Your task to perform on an android device: change keyboard looks Image 0: 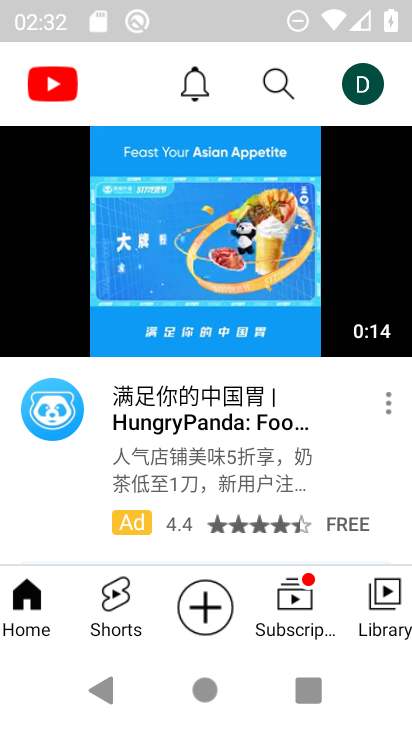
Step 0: press home button
Your task to perform on an android device: change keyboard looks Image 1: 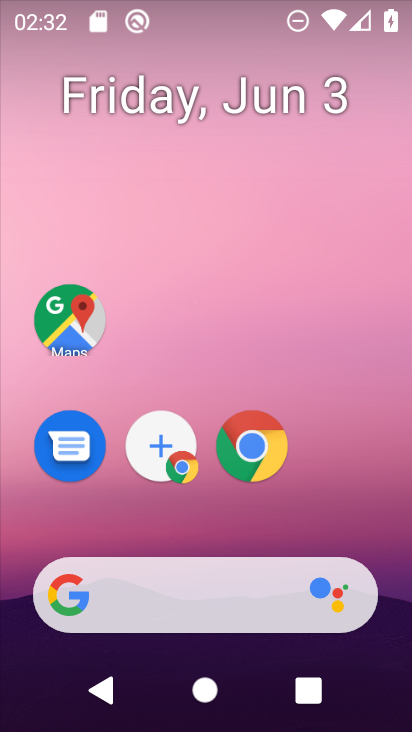
Step 1: drag from (239, 715) to (158, 0)
Your task to perform on an android device: change keyboard looks Image 2: 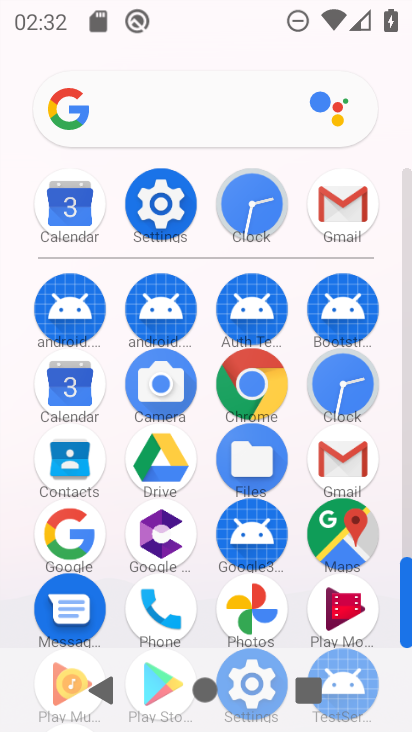
Step 2: click (143, 173)
Your task to perform on an android device: change keyboard looks Image 3: 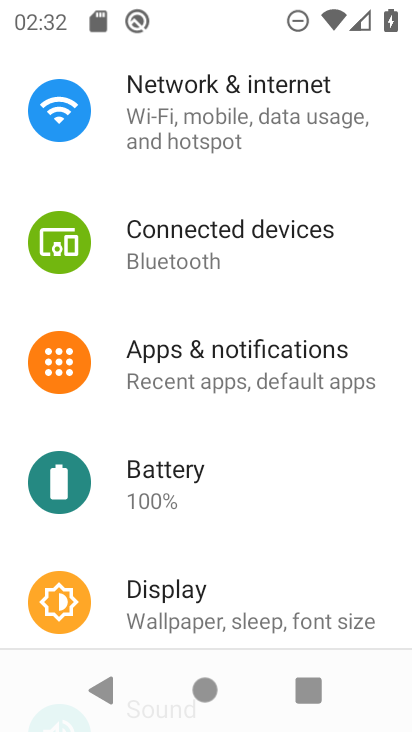
Step 3: drag from (270, 619) to (229, 149)
Your task to perform on an android device: change keyboard looks Image 4: 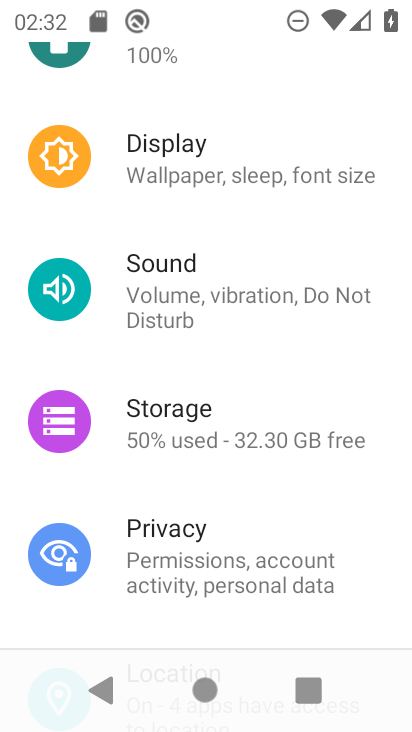
Step 4: drag from (227, 579) to (211, 177)
Your task to perform on an android device: change keyboard looks Image 5: 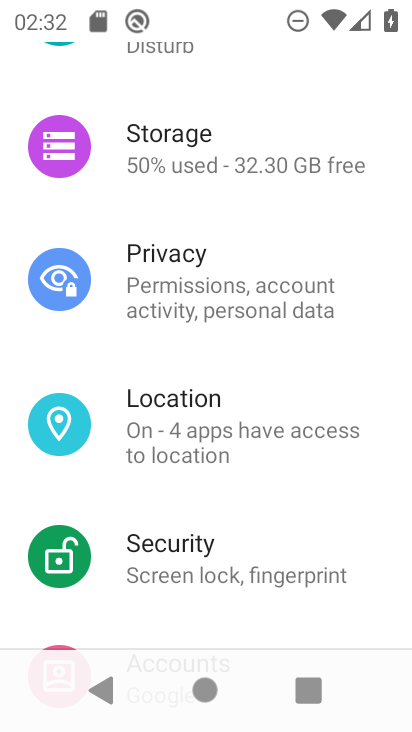
Step 5: drag from (262, 549) to (289, 177)
Your task to perform on an android device: change keyboard looks Image 6: 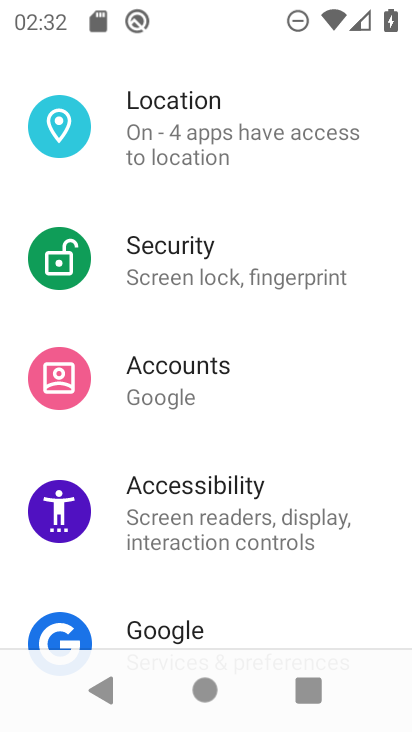
Step 6: drag from (222, 539) to (185, 113)
Your task to perform on an android device: change keyboard looks Image 7: 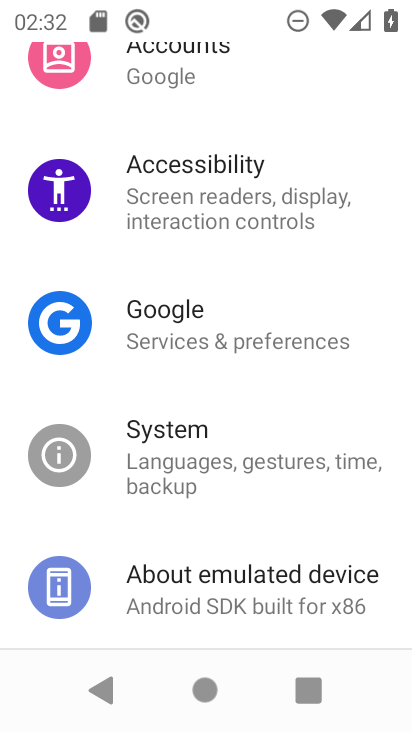
Step 7: click (261, 458)
Your task to perform on an android device: change keyboard looks Image 8: 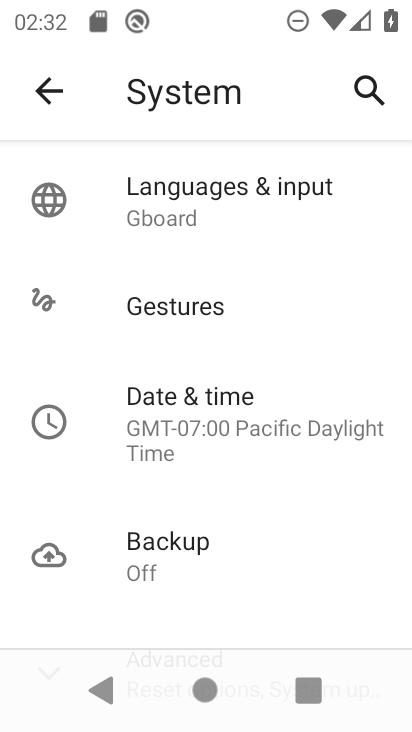
Step 8: click (275, 196)
Your task to perform on an android device: change keyboard looks Image 9: 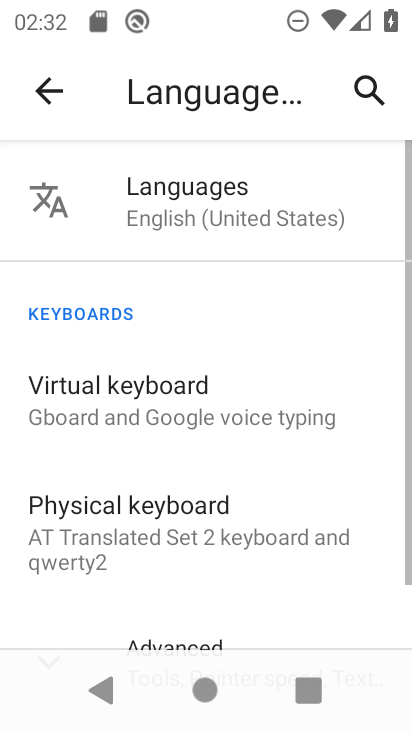
Step 9: click (130, 399)
Your task to perform on an android device: change keyboard looks Image 10: 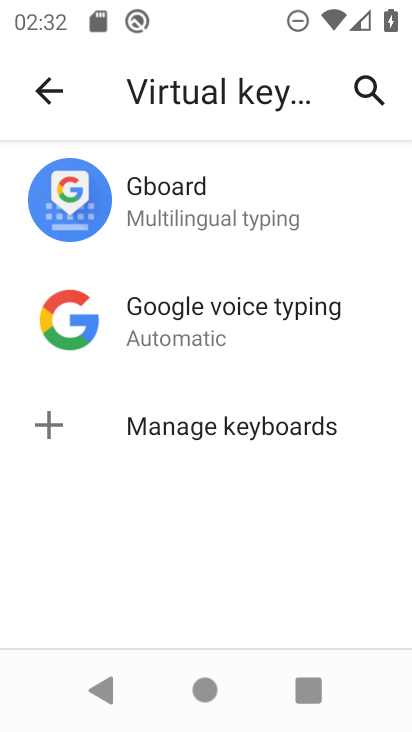
Step 10: click (251, 190)
Your task to perform on an android device: change keyboard looks Image 11: 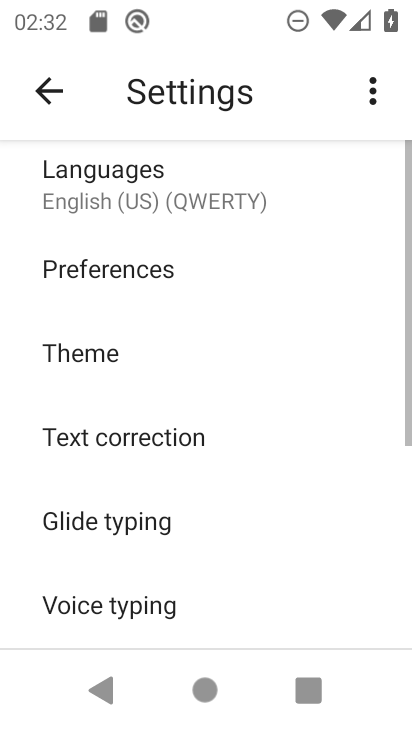
Step 11: click (94, 368)
Your task to perform on an android device: change keyboard looks Image 12: 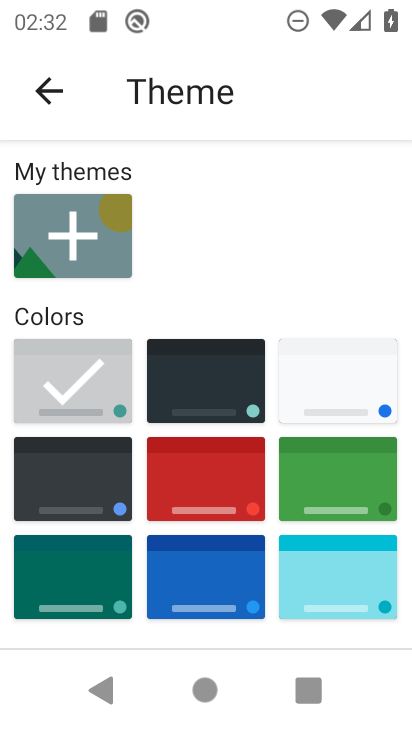
Step 12: click (234, 475)
Your task to perform on an android device: change keyboard looks Image 13: 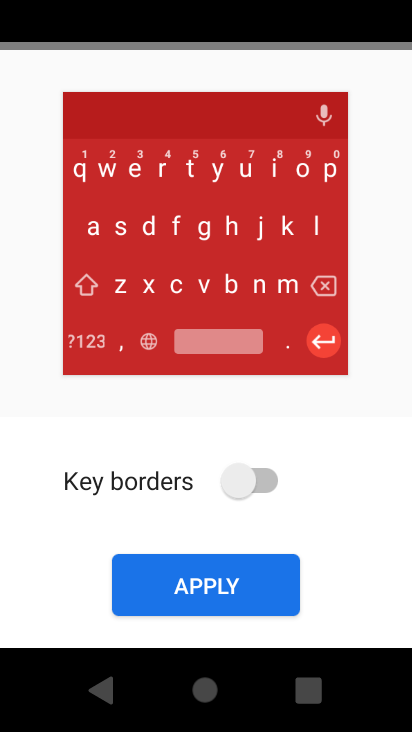
Step 13: click (228, 587)
Your task to perform on an android device: change keyboard looks Image 14: 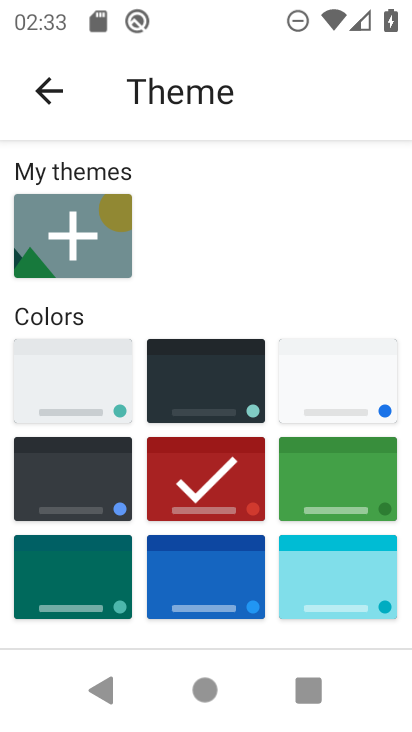
Step 14: task complete